Your task to perform on an android device: Open Youtube and go to "Your channel" Image 0: 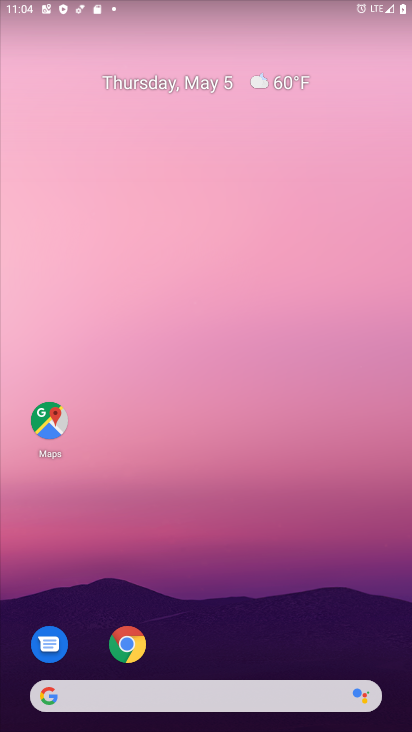
Step 0: drag from (244, 533) to (258, 136)
Your task to perform on an android device: Open Youtube and go to "Your channel" Image 1: 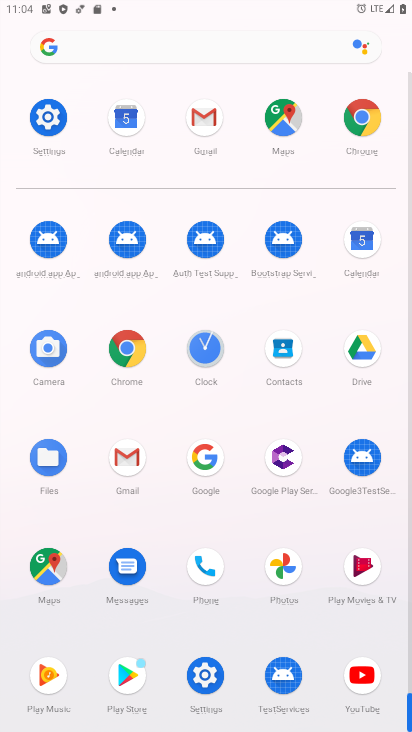
Step 1: click (354, 686)
Your task to perform on an android device: Open Youtube and go to "Your channel" Image 2: 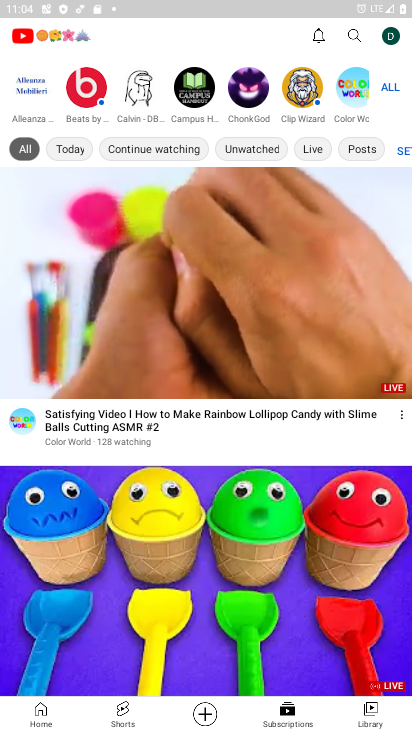
Step 2: click (364, 712)
Your task to perform on an android device: Open Youtube and go to "Your channel" Image 3: 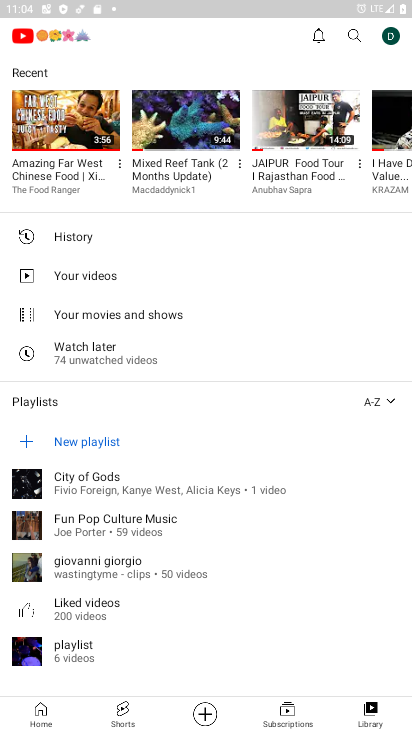
Step 3: click (395, 35)
Your task to perform on an android device: Open Youtube and go to "Your channel" Image 4: 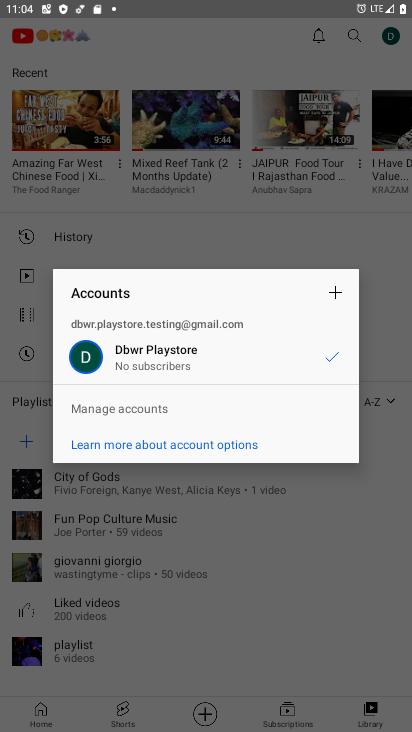
Step 4: click (395, 35)
Your task to perform on an android device: Open Youtube and go to "Your channel" Image 5: 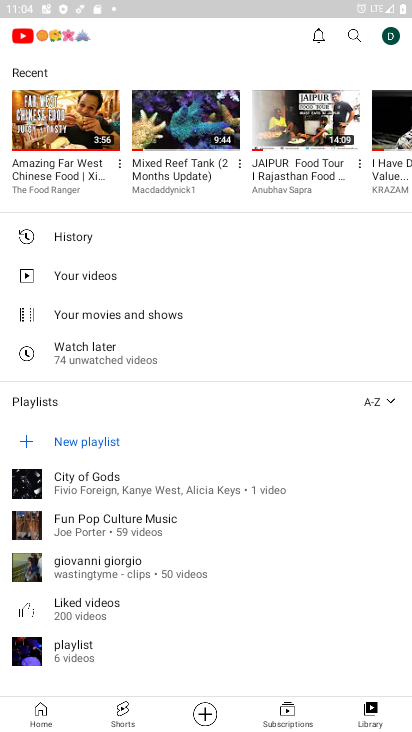
Step 5: click (396, 40)
Your task to perform on an android device: Open Youtube and go to "Your channel" Image 6: 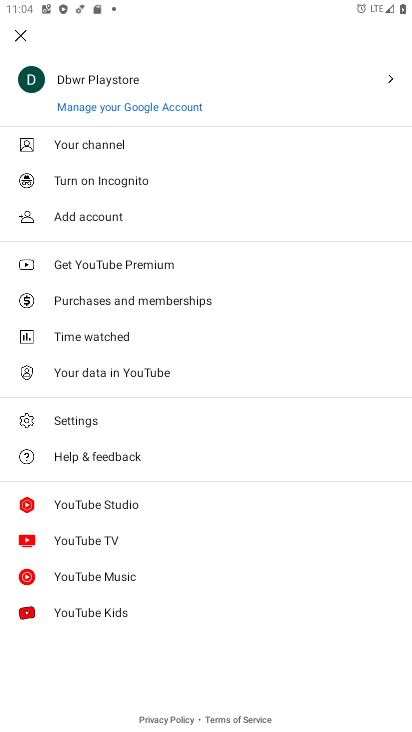
Step 6: click (91, 144)
Your task to perform on an android device: Open Youtube and go to "Your channel" Image 7: 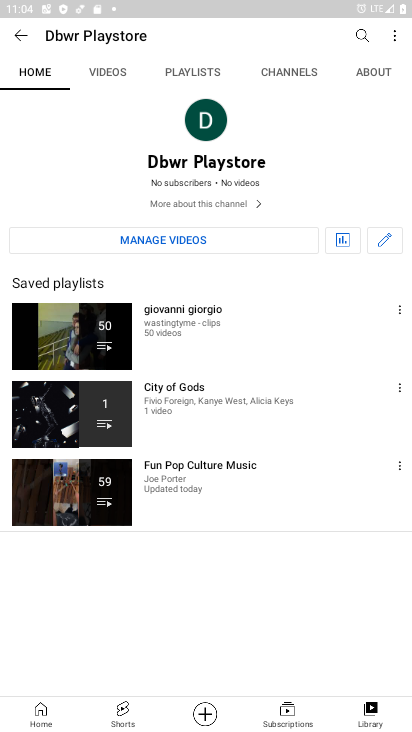
Step 7: task complete